Your task to perform on an android device: open app "Microsoft Outlook" Image 0: 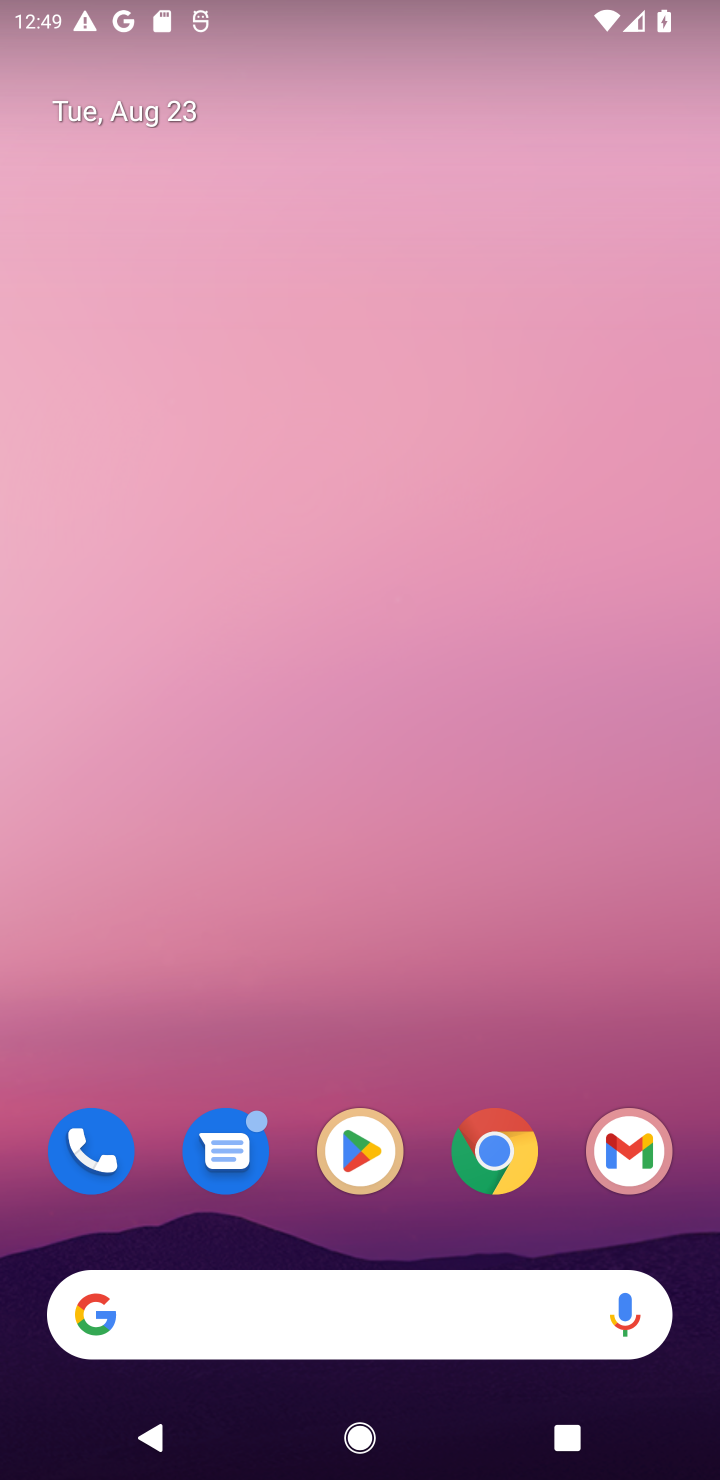
Step 0: click (372, 1124)
Your task to perform on an android device: open app "Microsoft Outlook" Image 1: 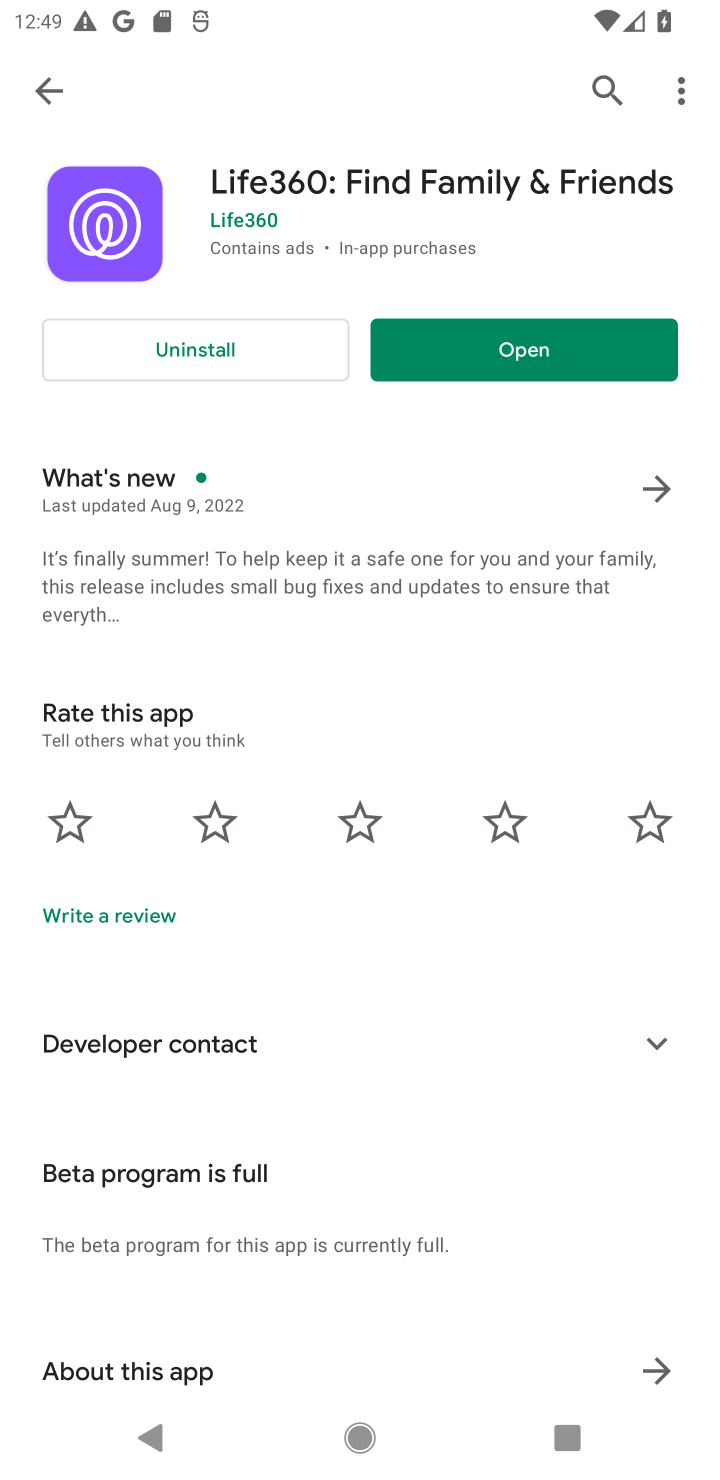
Step 1: click (608, 69)
Your task to perform on an android device: open app "Microsoft Outlook" Image 2: 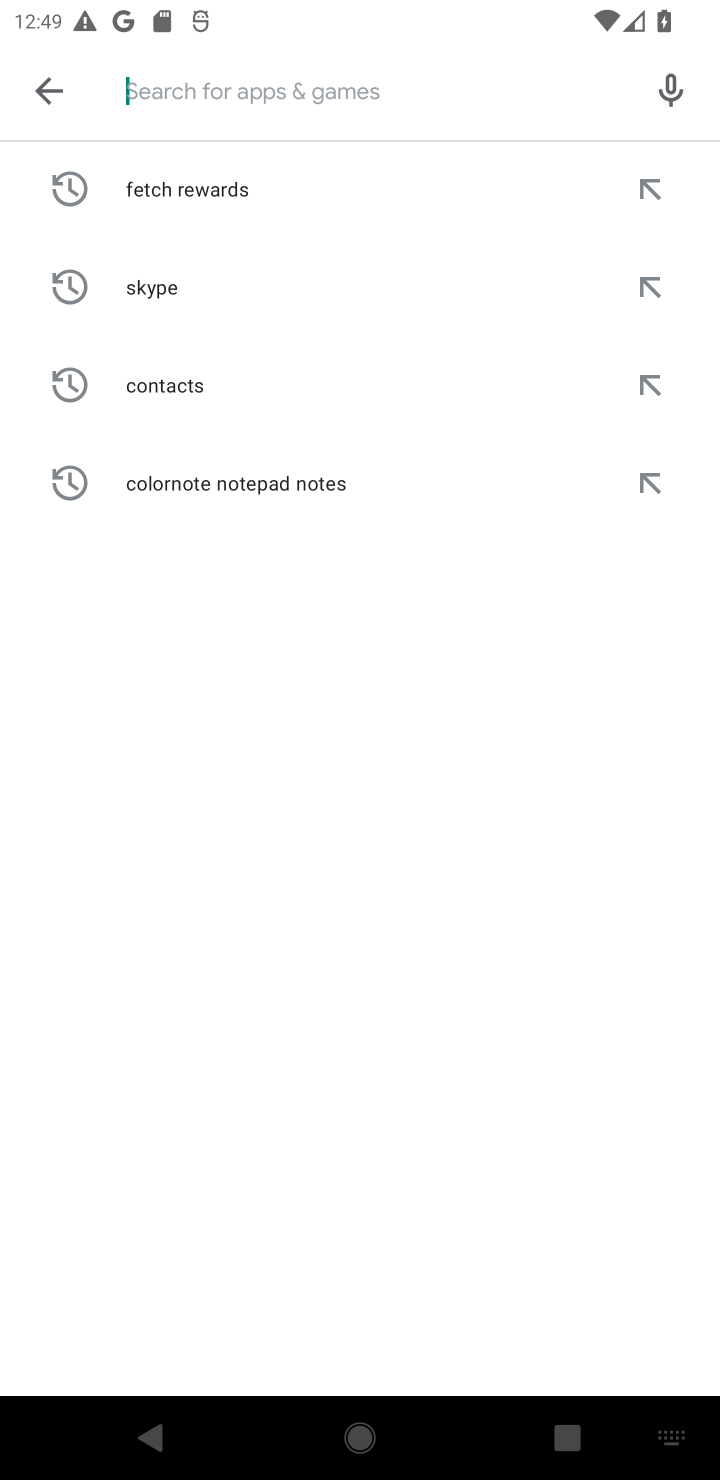
Step 2: type "Microsoft Outlook"
Your task to perform on an android device: open app "Microsoft Outlook" Image 3: 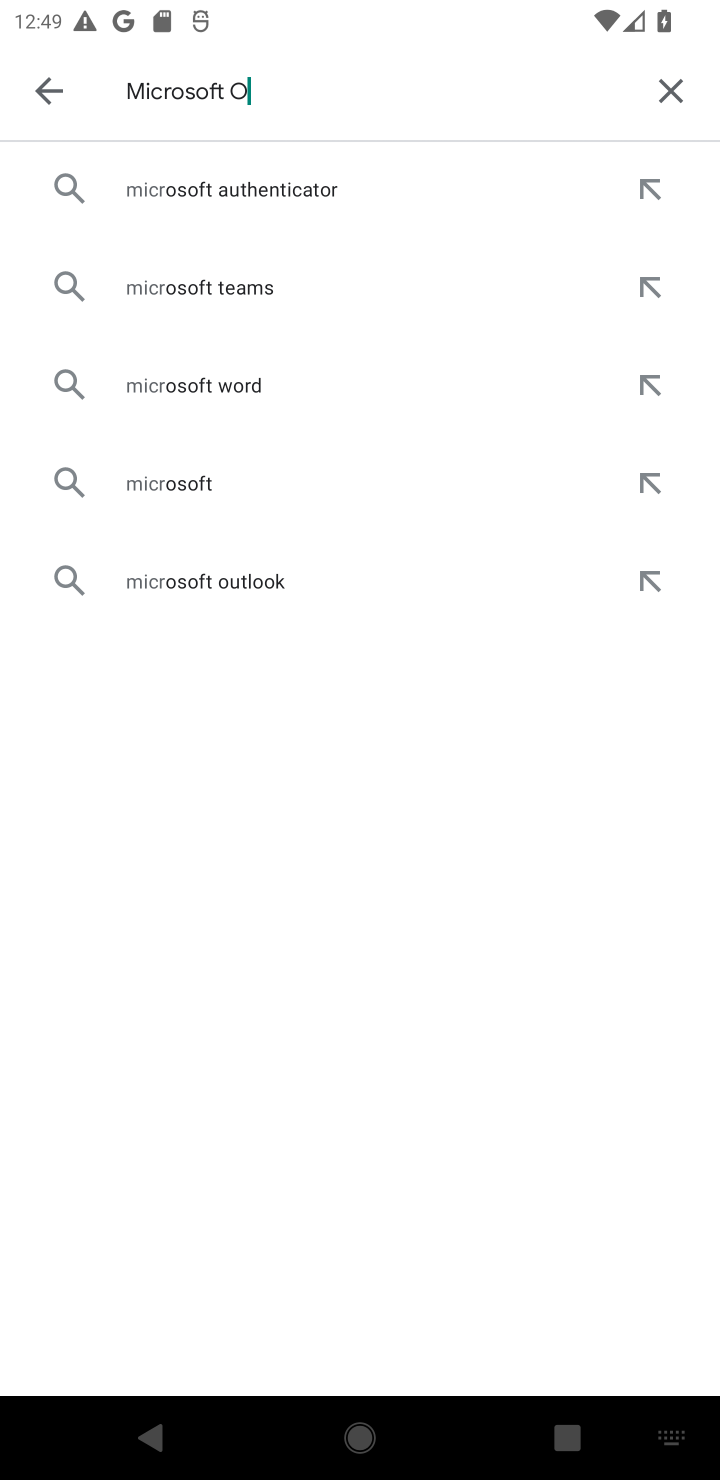
Step 3: type ""
Your task to perform on an android device: open app "Microsoft Outlook" Image 4: 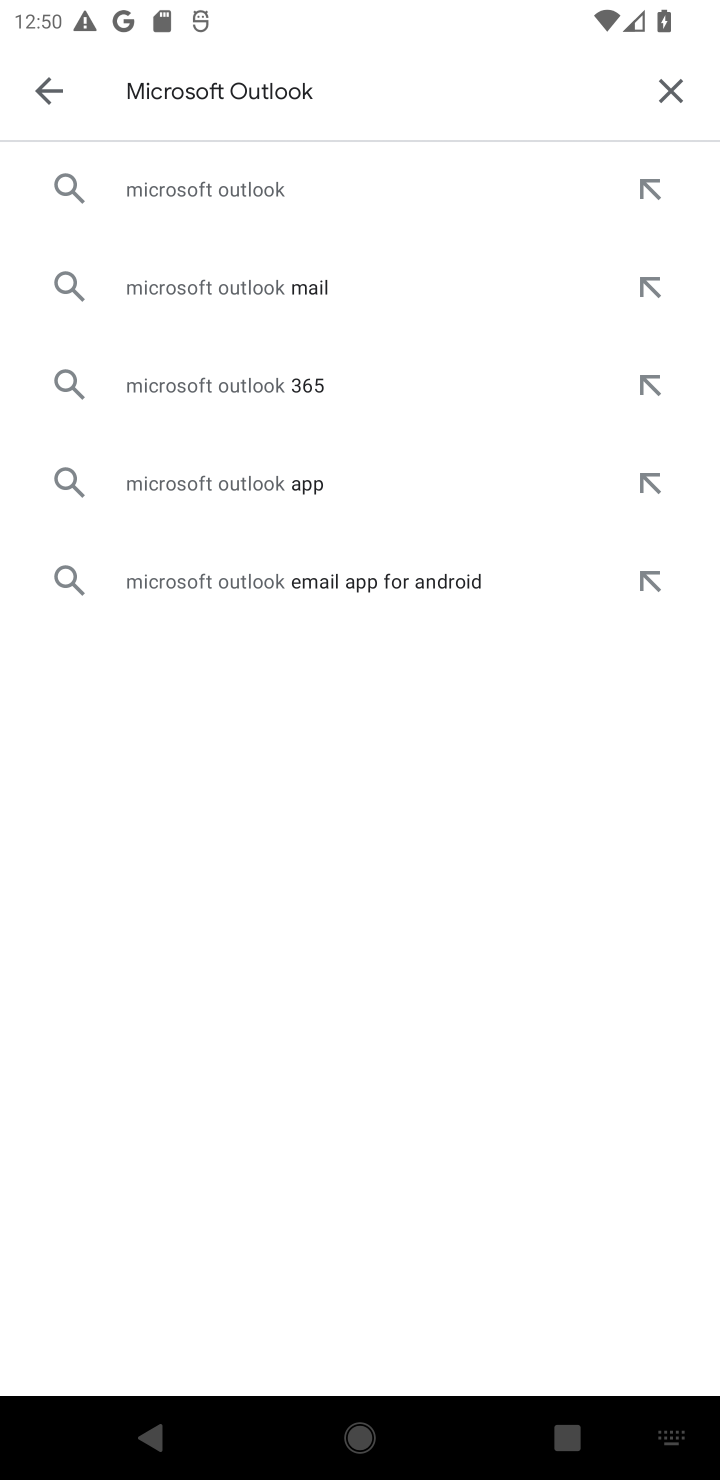
Step 4: click (261, 189)
Your task to perform on an android device: open app "Microsoft Outlook" Image 5: 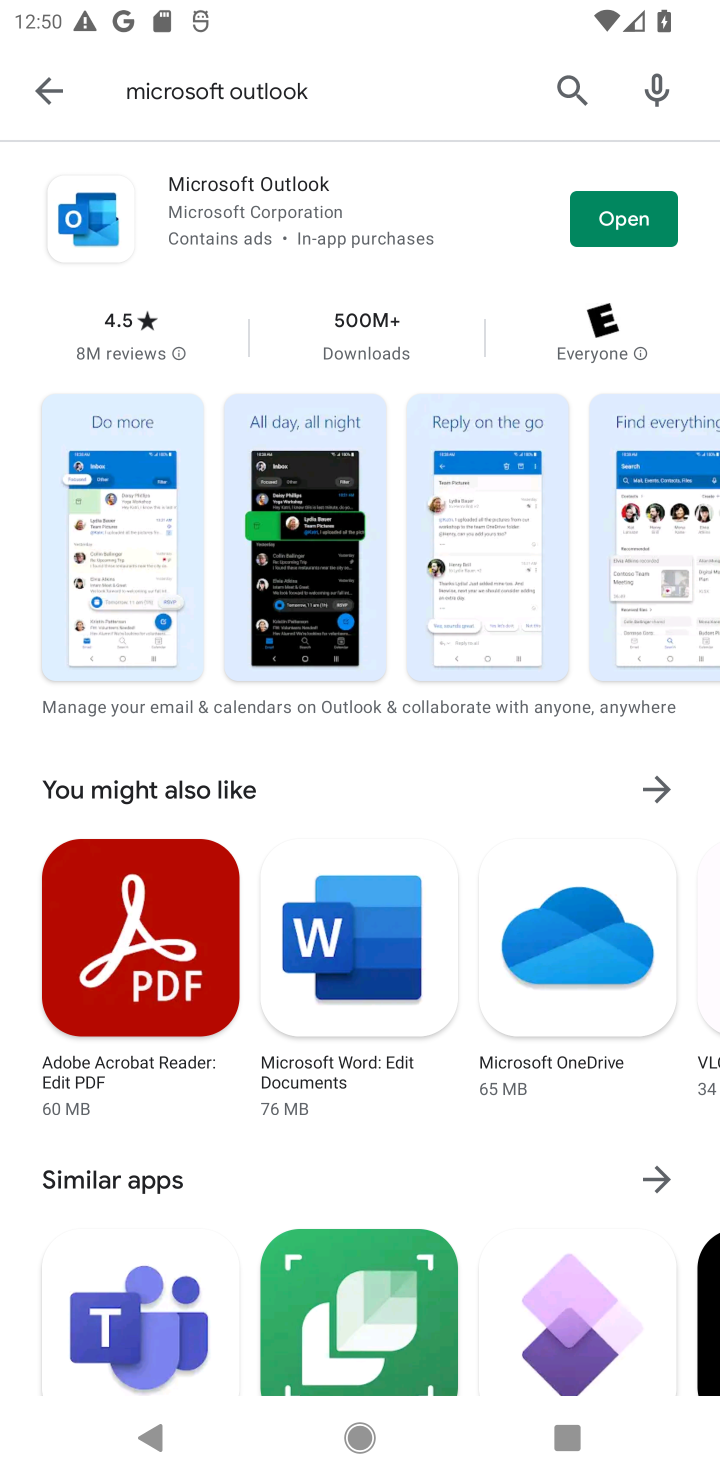
Step 5: click (661, 203)
Your task to perform on an android device: open app "Microsoft Outlook" Image 6: 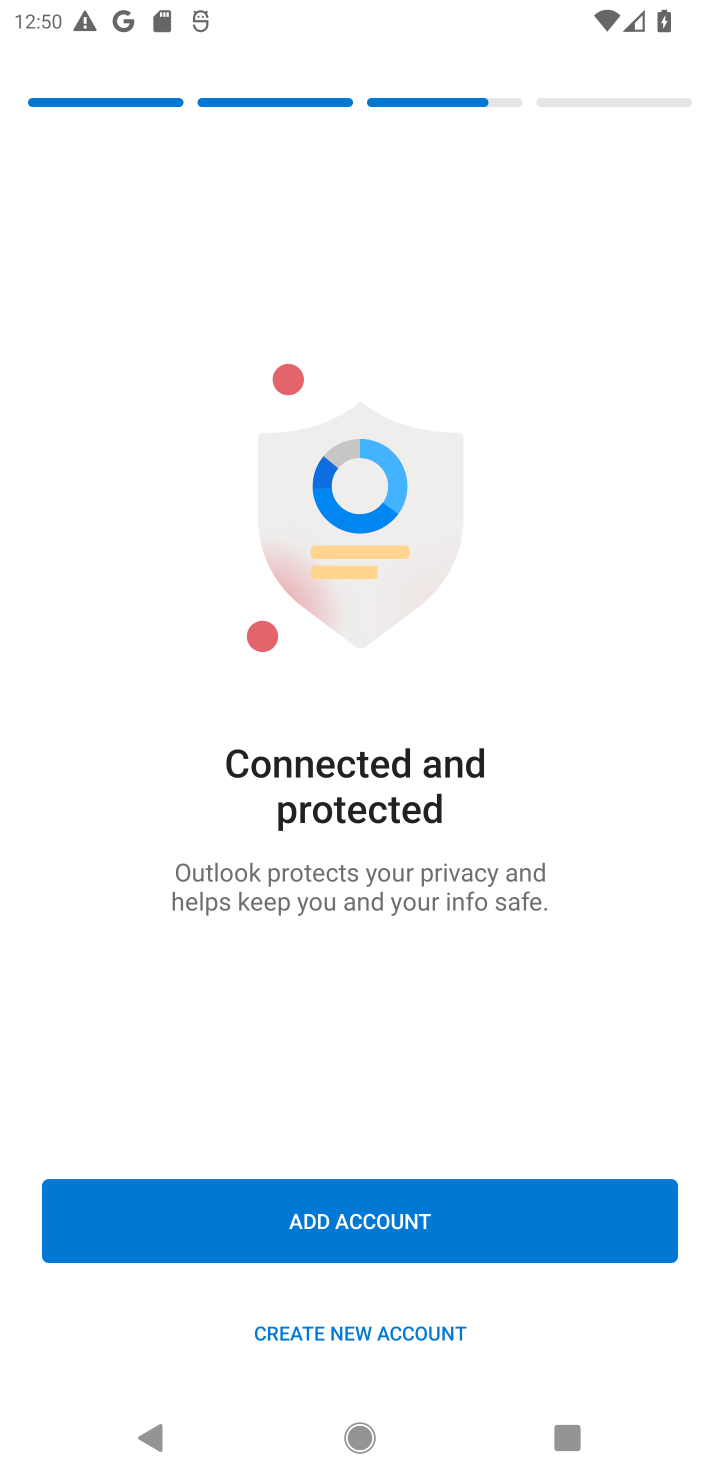
Step 6: task complete